Your task to perform on an android device: show emergency info Image 0: 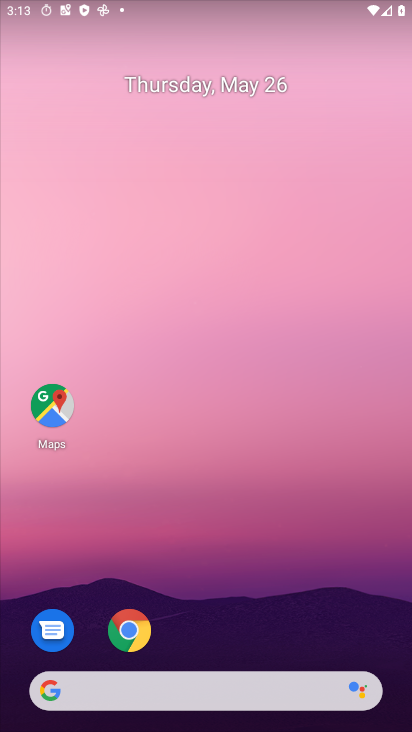
Step 0: drag from (286, 441) to (296, 285)
Your task to perform on an android device: show emergency info Image 1: 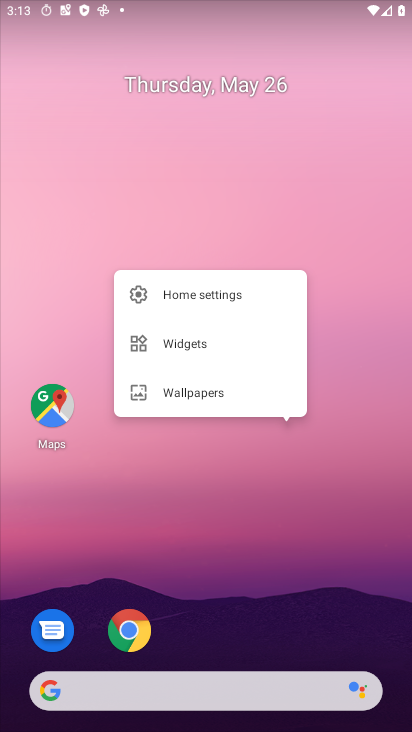
Step 1: drag from (318, 638) to (315, 240)
Your task to perform on an android device: show emergency info Image 2: 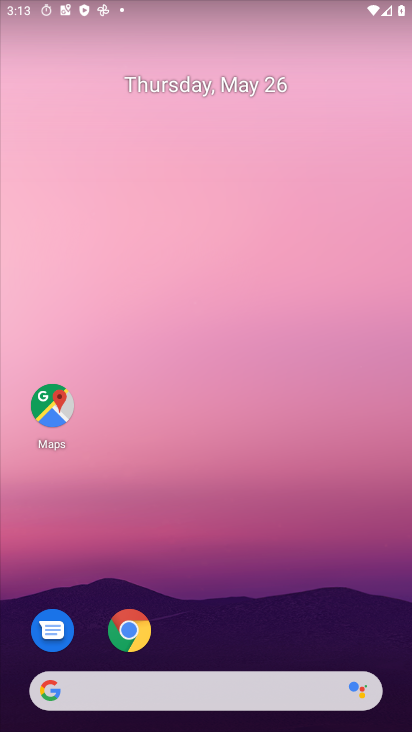
Step 2: click (306, 714)
Your task to perform on an android device: show emergency info Image 3: 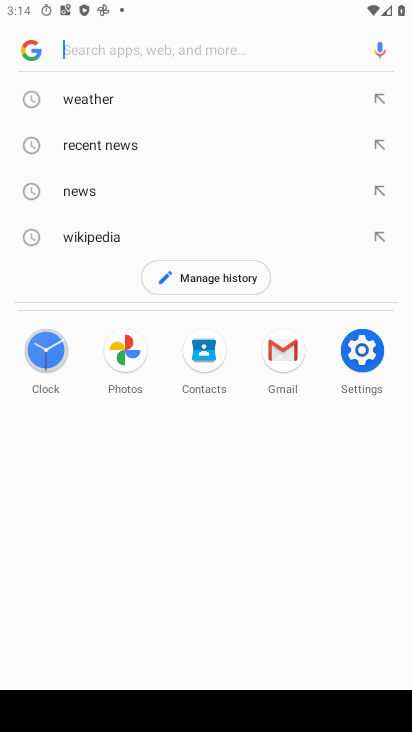
Step 3: press home button
Your task to perform on an android device: show emergency info Image 4: 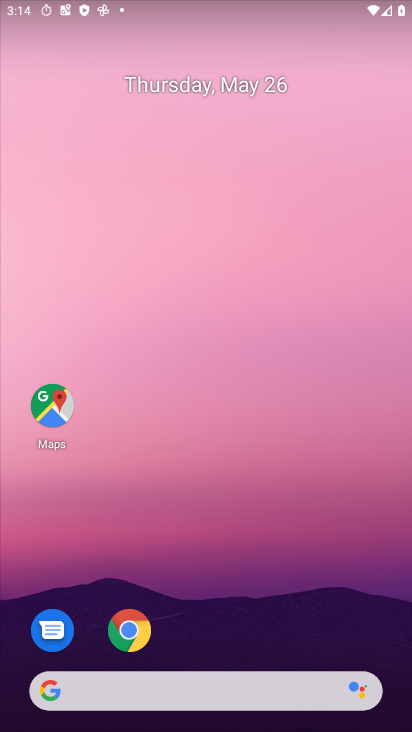
Step 4: drag from (218, 522) to (173, 219)
Your task to perform on an android device: show emergency info Image 5: 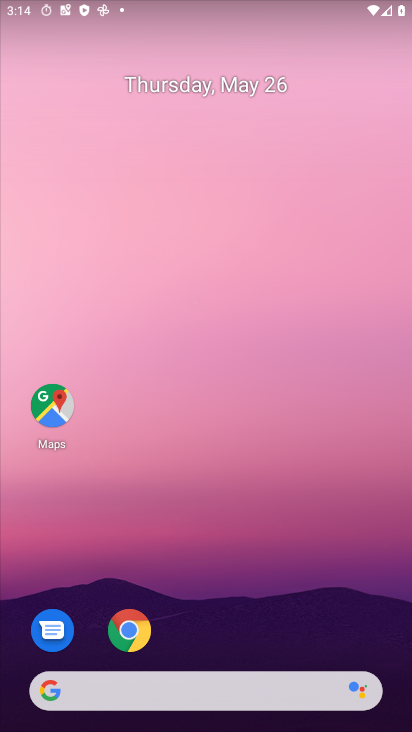
Step 5: drag from (261, 634) to (220, 320)
Your task to perform on an android device: show emergency info Image 6: 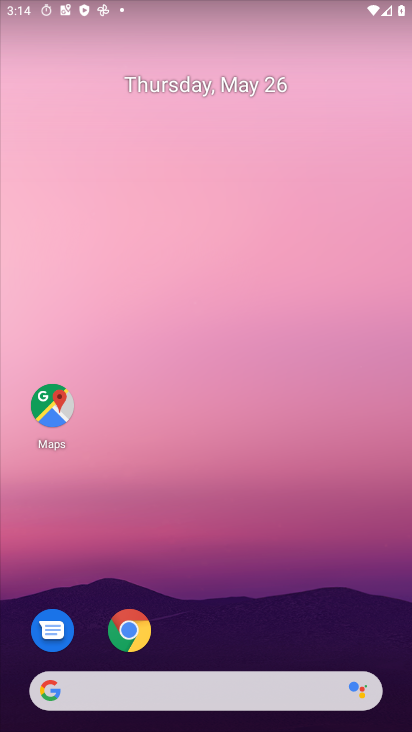
Step 6: click (333, 458)
Your task to perform on an android device: show emergency info Image 7: 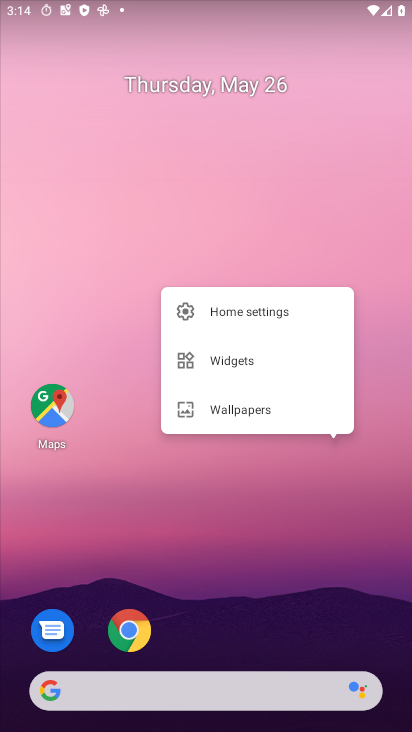
Step 7: click (284, 569)
Your task to perform on an android device: show emergency info Image 8: 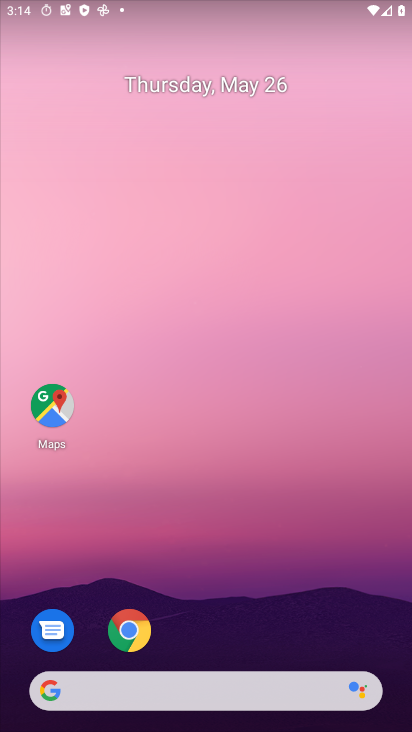
Step 8: click (287, 569)
Your task to perform on an android device: show emergency info Image 9: 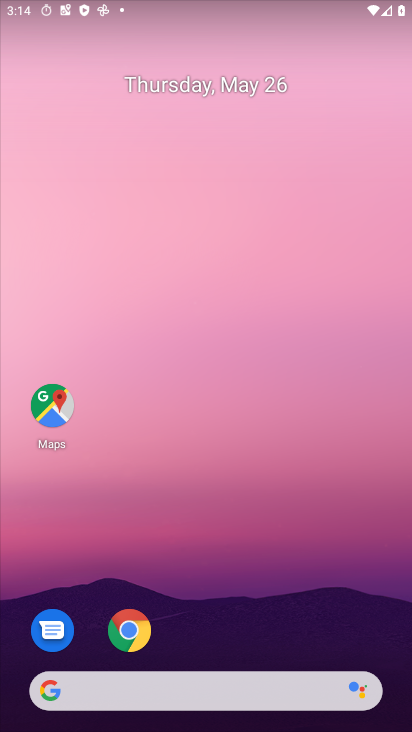
Step 9: drag from (247, 613) to (274, 42)
Your task to perform on an android device: show emergency info Image 10: 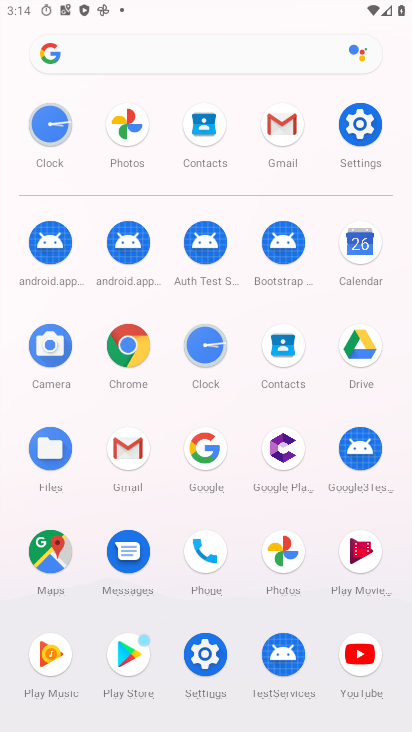
Step 10: click (369, 140)
Your task to perform on an android device: show emergency info Image 11: 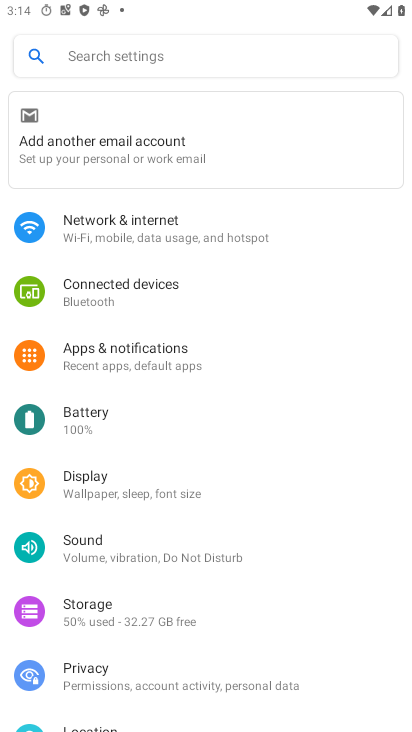
Step 11: drag from (173, 655) to (178, 313)
Your task to perform on an android device: show emergency info Image 12: 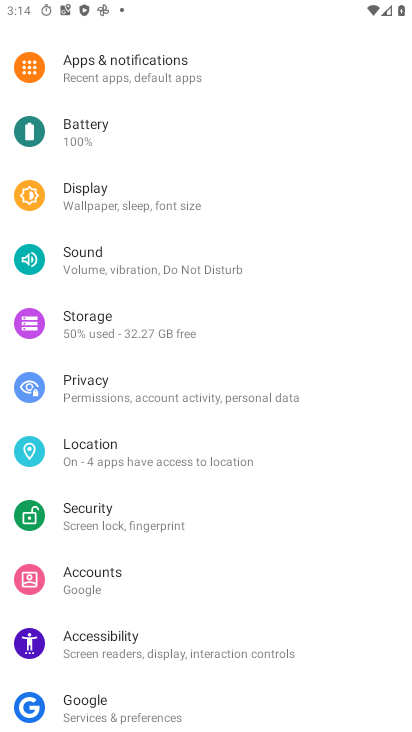
Step 12: drag from (177, 674) to (207, 302)
Your task to perform on an android device: show emergency info Image 13: 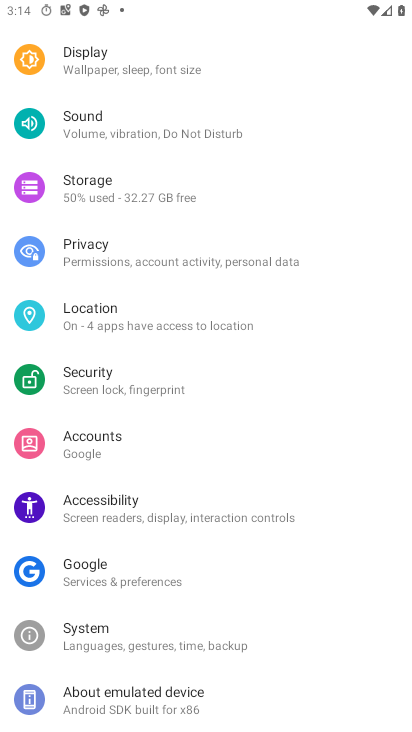
Step 13: click (143, 691)
Your task to perform on an android device: show emergency info Image 14: 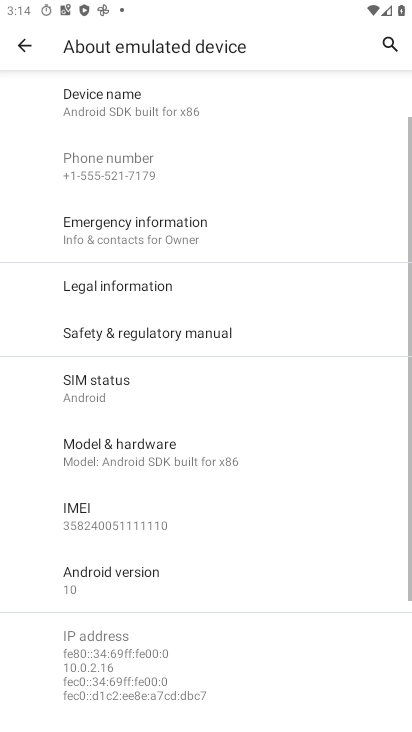
Step 14: click (228, 232)
Your task to perform on an android device: show emergency info Image 15: 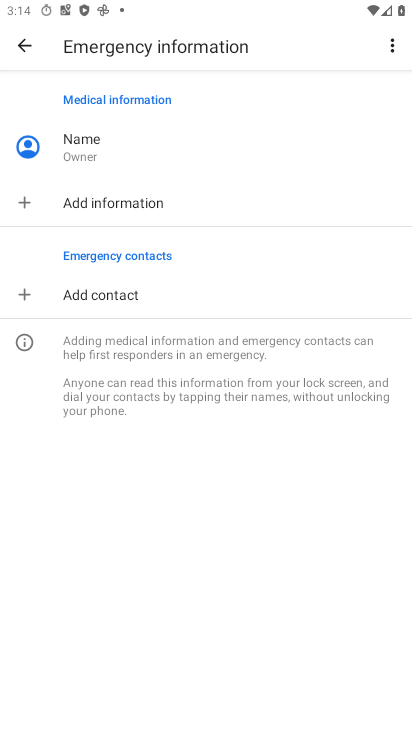
Step 15: task complete